Your task to perform on an android device: create a new album in the google photos Image 0: 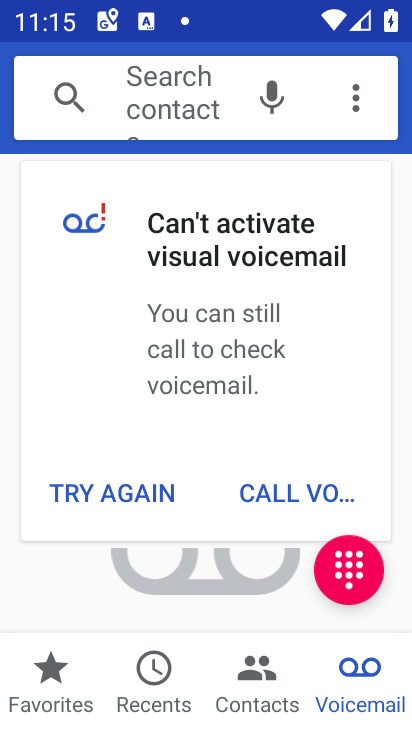
Step 0: press home button
Your task to perform on an android device: create a new album in the google photos Image 1: 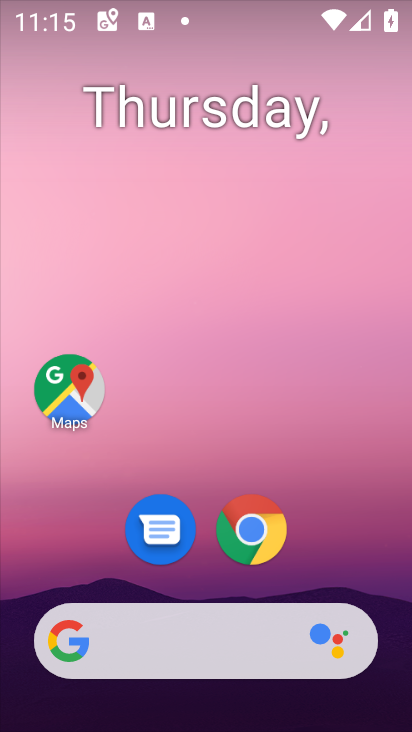
Step 1: drag from (188, 622) to (199, 119)
Your task to perform on an android device: create a new album in the google photos Image 2: 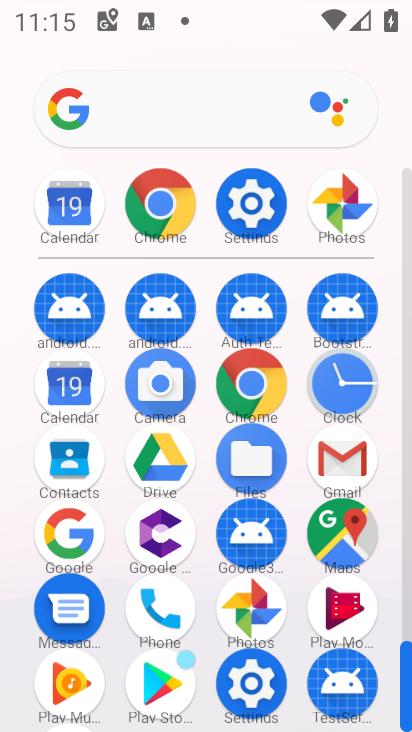
Step 2: drag from (130, 528) to (135, 342)
Your task to perform on an android device: create a new album in the google photos Image 3: 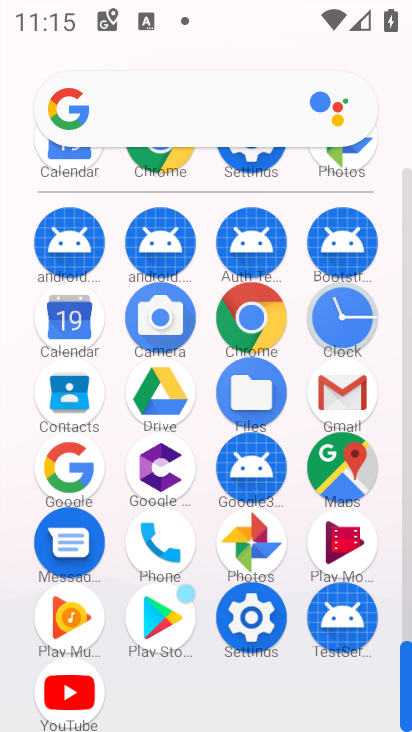
Step 3: click (255, 552)
Your task to perform on an android device: create a new album in the google photos Image 4: 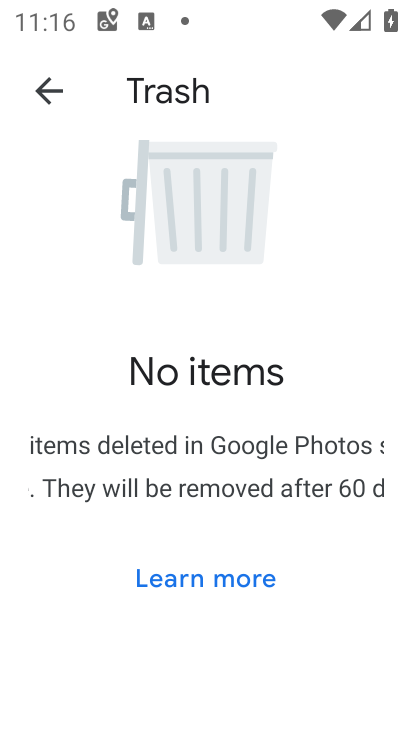
Step 4: press home button
Your task to perform on an android device: create a new album in the google photos Image 5: 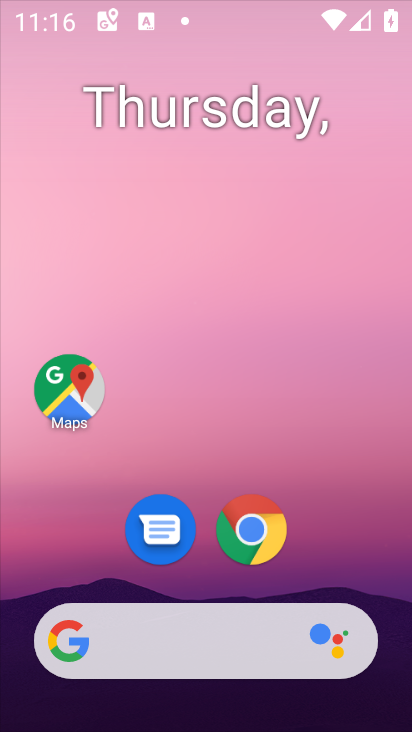
Step 5: drag from (220, 606) to (215, 111)
Your task to perform on an android device: create a new album in the google photos Image 6: 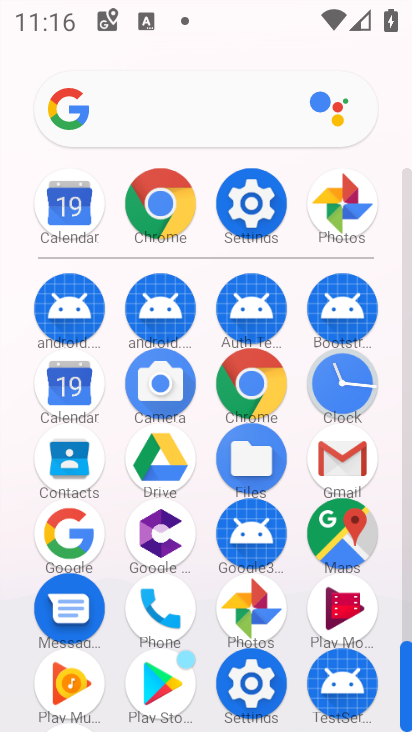
Step 6: drag from (213, 513) to (222, 153)
Your task to perform on an android device: create a new album in the google photos Image 7: 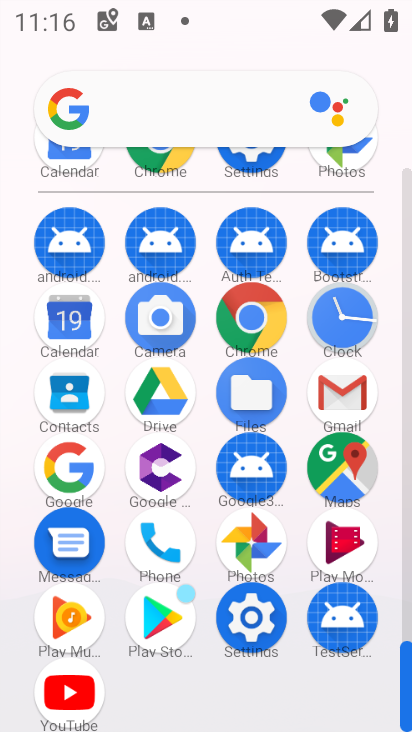
Step 7: click (268, 552)
Your task to perform on an android device: create a new album in the google photos Image 8: 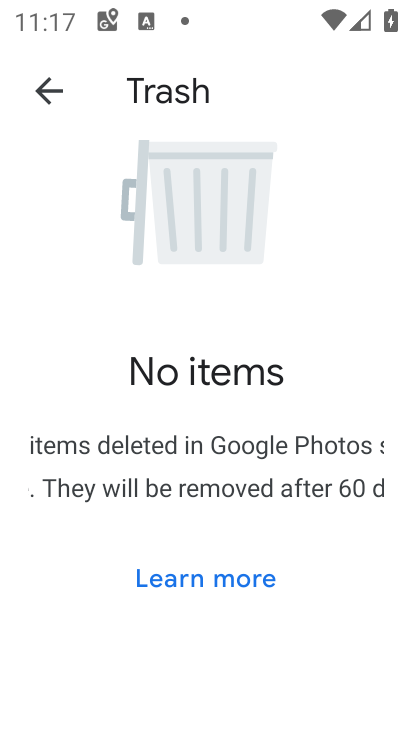
Step 8: click (46, 54)
Your task to perform on an android device: create a new album in the google photos Image 9: 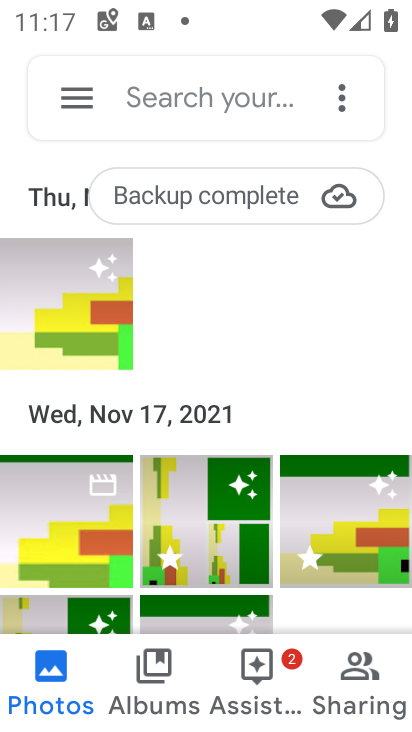
Step 9: click (145, 690)
Your task to perform on an android device: create a new album in the google photos Image 10: 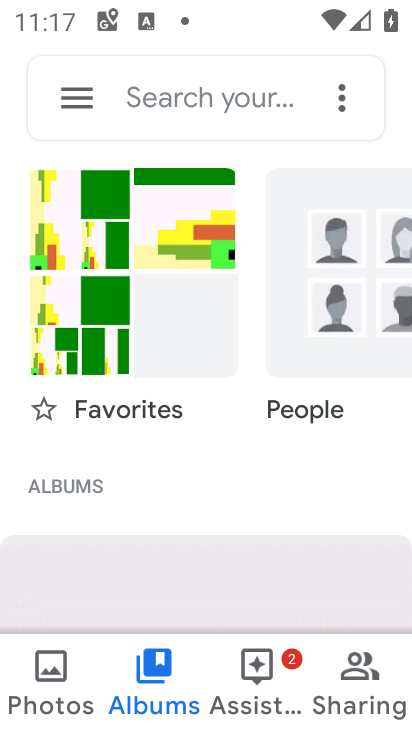
Step 10: drag from (251, 408) to (242, 6)
Your task to perform on an android device: create a new album in the google photos Image 11: 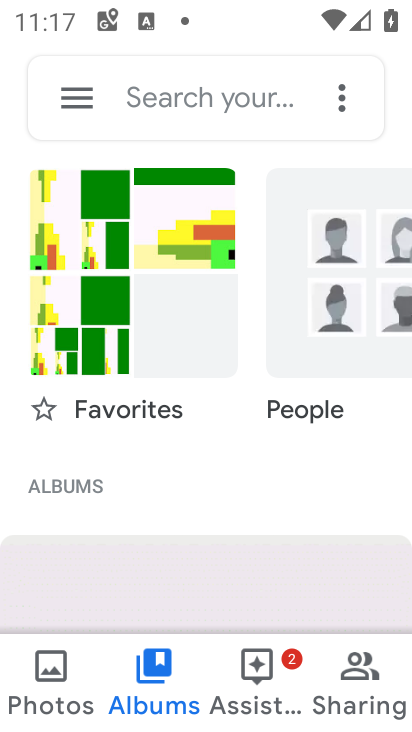
Step 11: drag from (249, 558) to (324, 11)
Your task to perform on an android device: create a new album in the google photos Image 12: 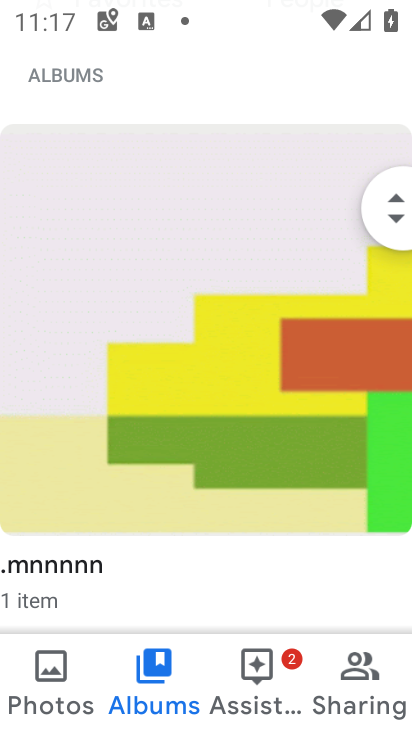
Step 12: drag from (266, 502) to (270, 209)
Your task to perform on an android device: create a new album in the google photos Image 13: 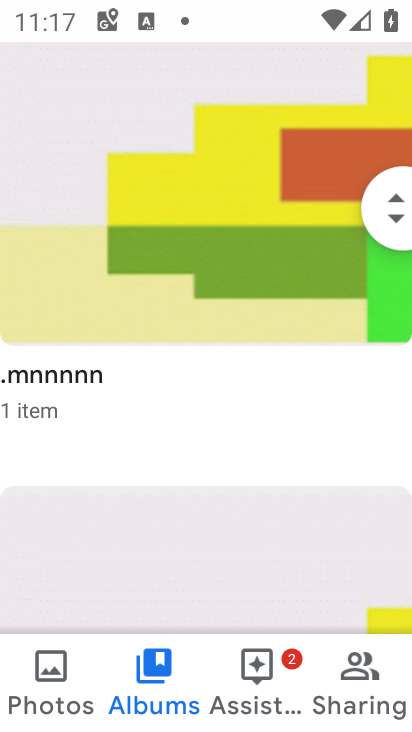
Step 13: click (300, 127)
Your task to perform on an android device: create a new album in the google photos Image 14: 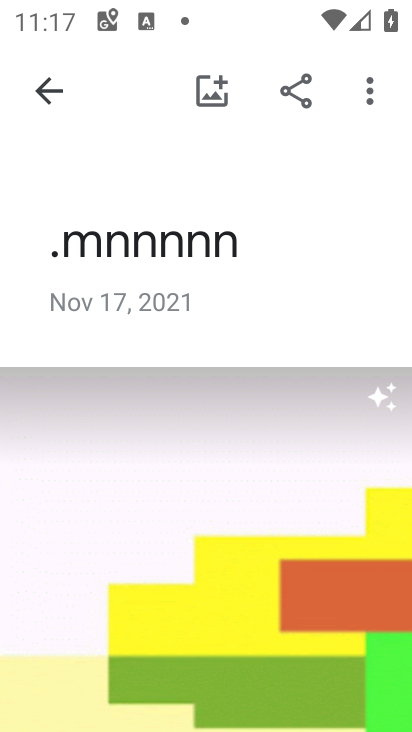
Step 14: task complete